Your task to perform on an android device: install app "Fetch Rewards" Image 0: 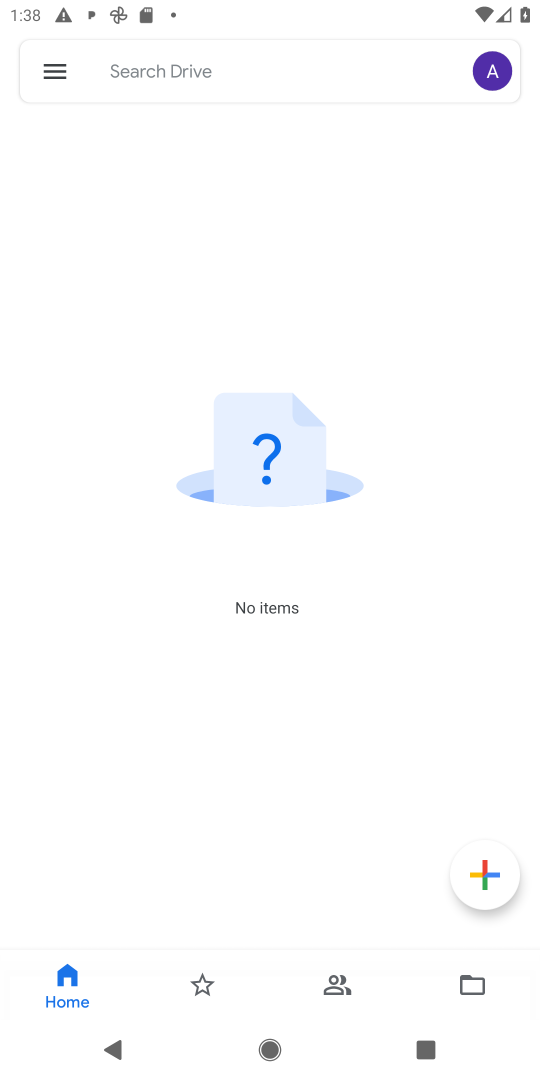
Step 0: press home button
Your task to perform on an android device: install app "Fetch Rewards" Image 1: 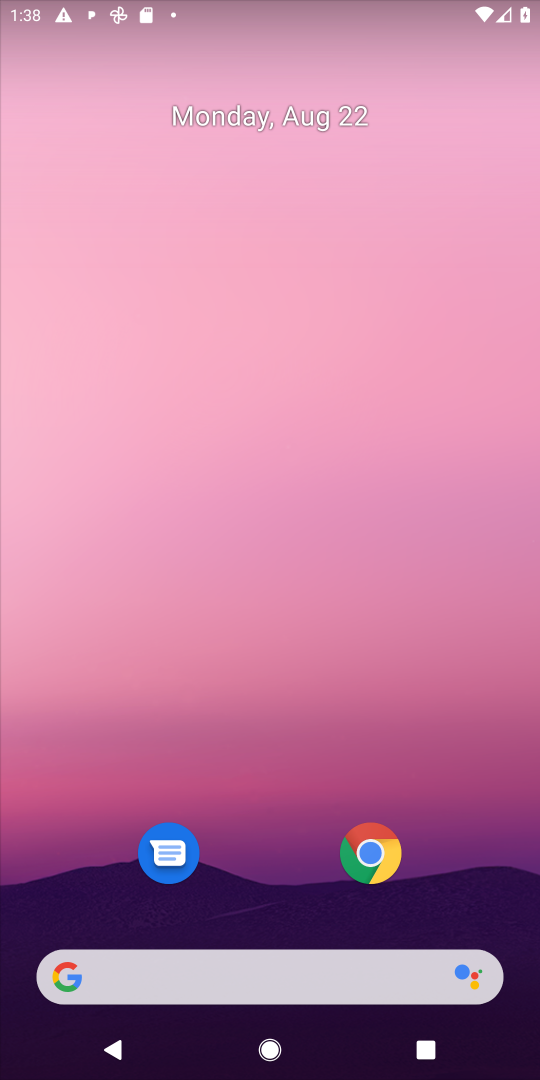
Step 1: drag from (267, 899) to (238, 427)
Your task to perform on an android device: install app "Fetch Rewards" Image 2: 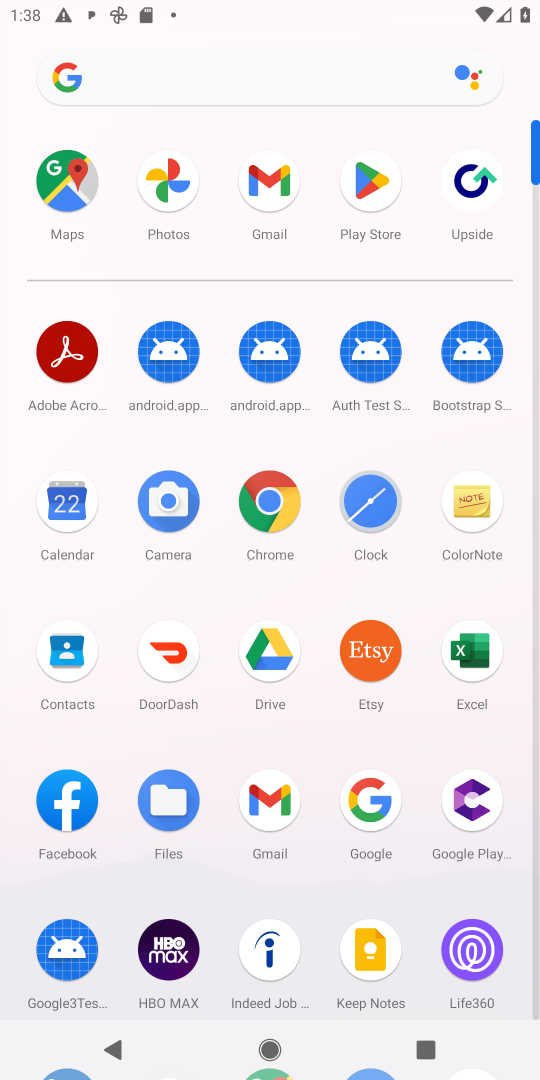
Step 2: click (364, 178)
Your task to perform on an android device: install app "Fetch Rewards" Image 3: 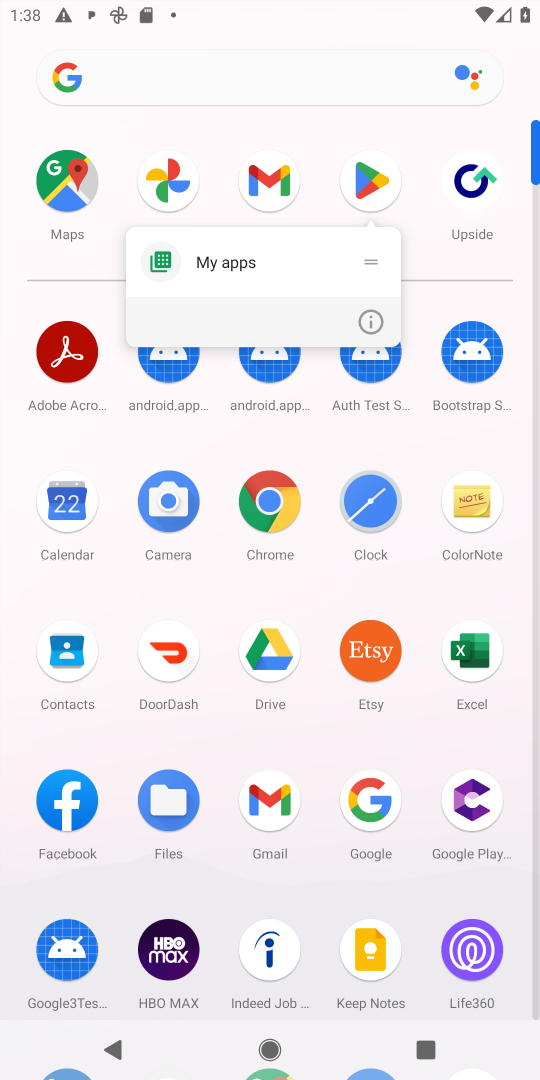
Step 3: click (355, 181)
Your task to perform on an android device: install app "Fetch Rewards" Image 4: 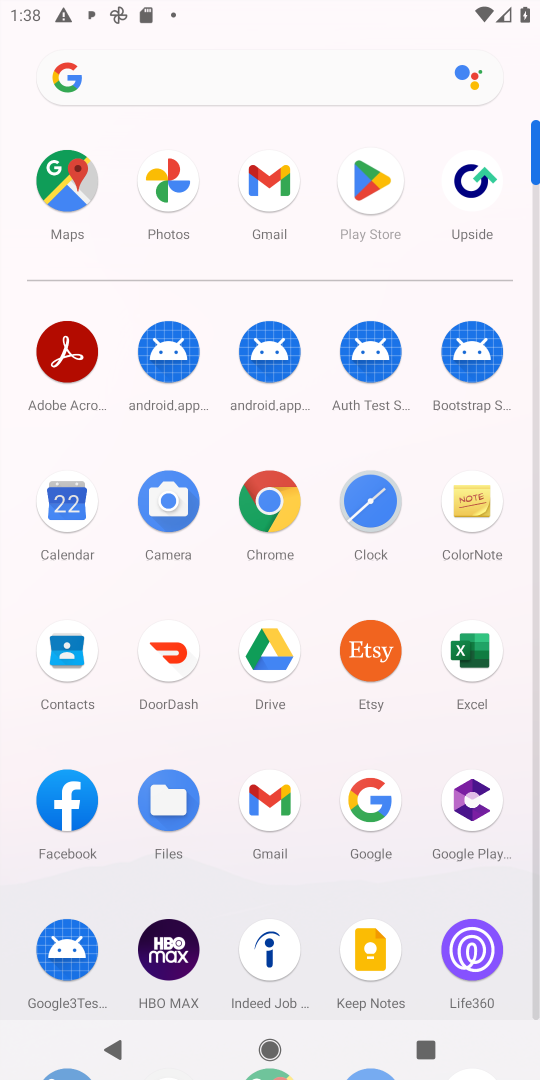
Step 4: click (355, 181)
Your task to perform on an android device: install app "Fetch Rewards" Image 5: 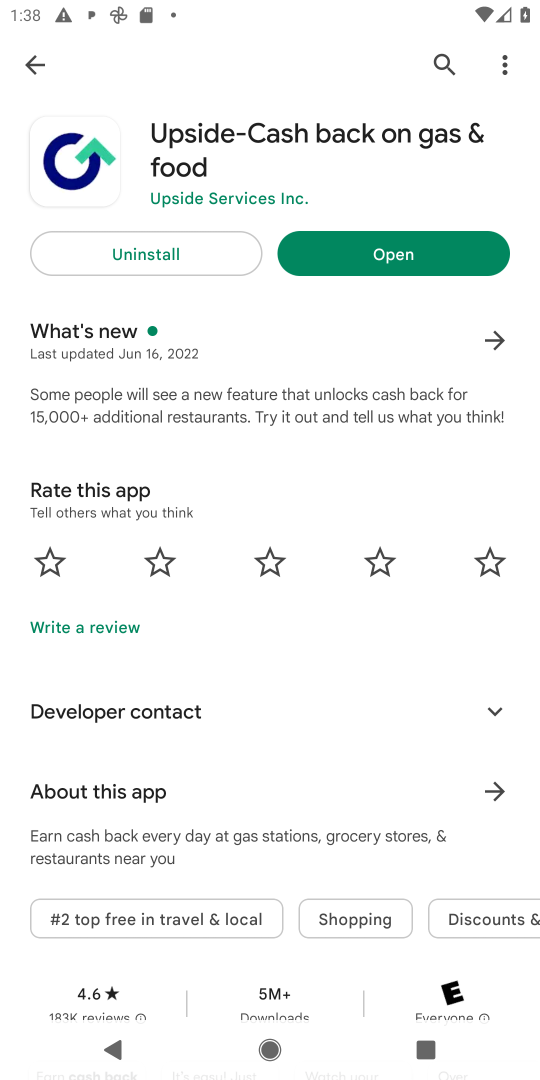
Step 5: click (16, 62)
Your task to perform on an android device: install app "Fetch Rewards" Image 6: 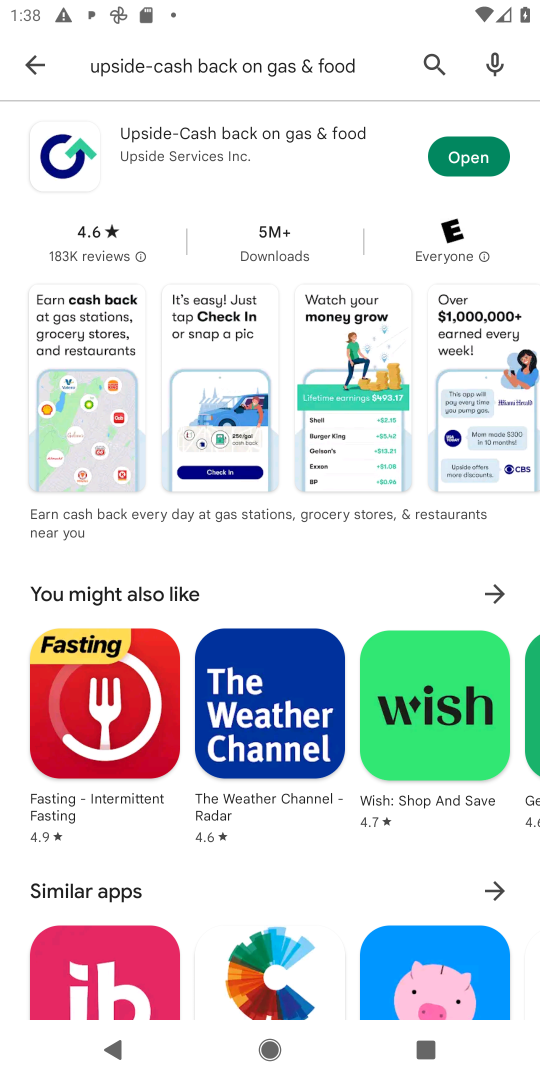
Step 6: click (45, 63)
Your task to perform on an android device: install app "Fetch Rewards" Image 7: 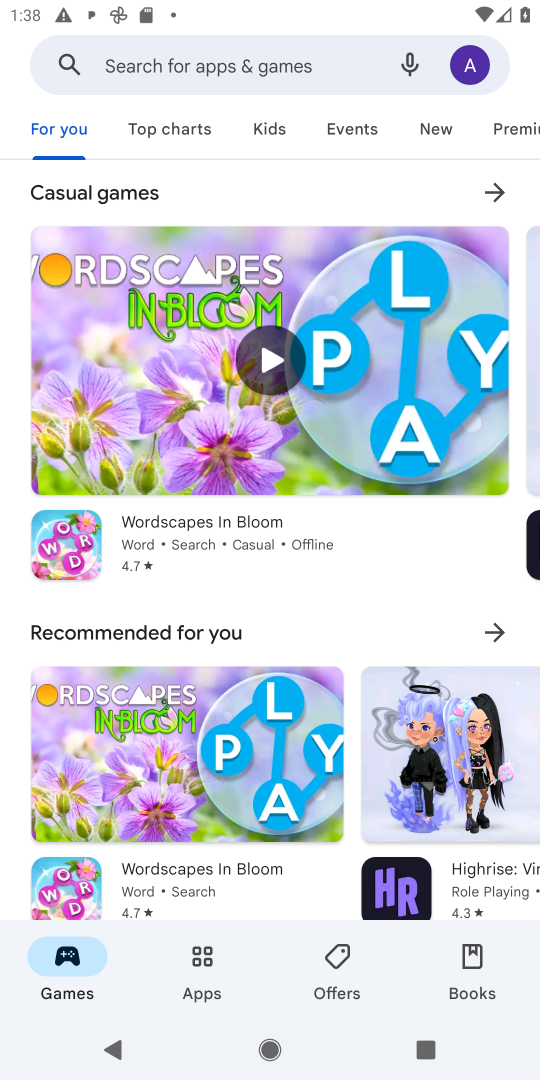
Step 7: click (248, 44)
Your task to perform on an android device: install app "Fetch Rewards" Image 8: 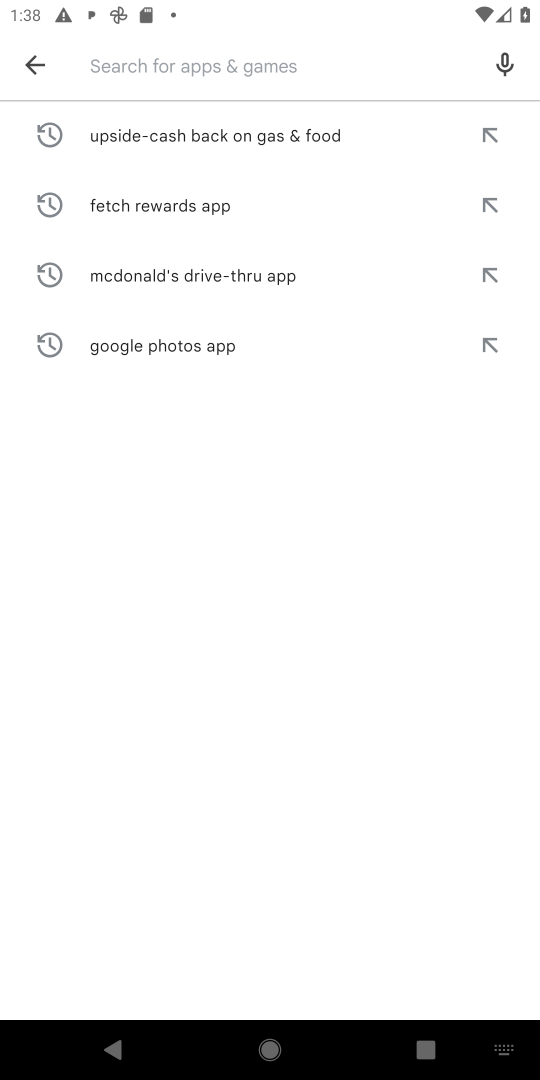
Step 8: type "Fetch Rewards "
Your task to perform on an android device: install app "Fetch Rewards" Image 9: 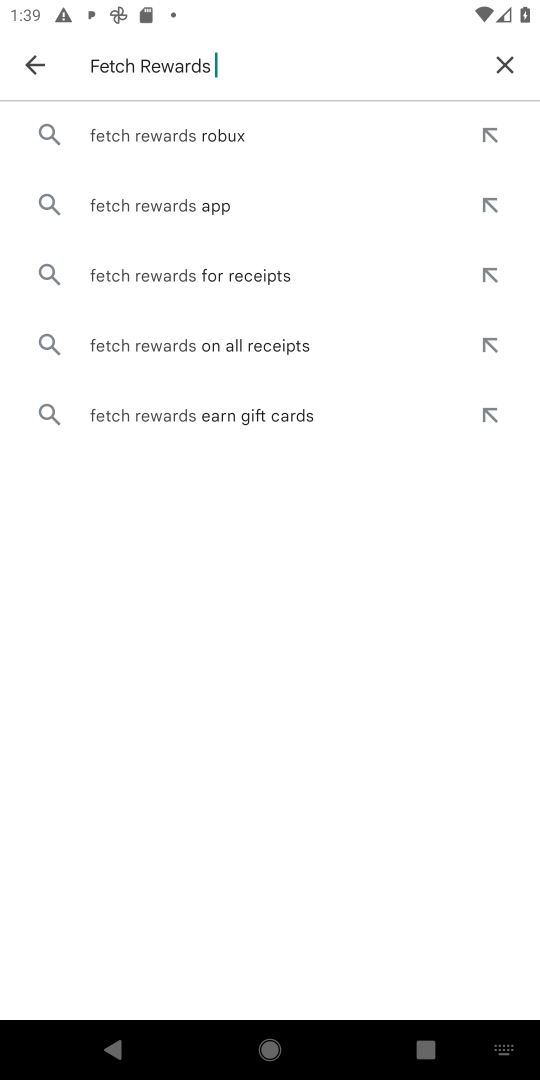
Step 9: drag from (194, 146) to (35, 203)
Your task to perform on an android device: install app "Fetch Rewards" Image 10: 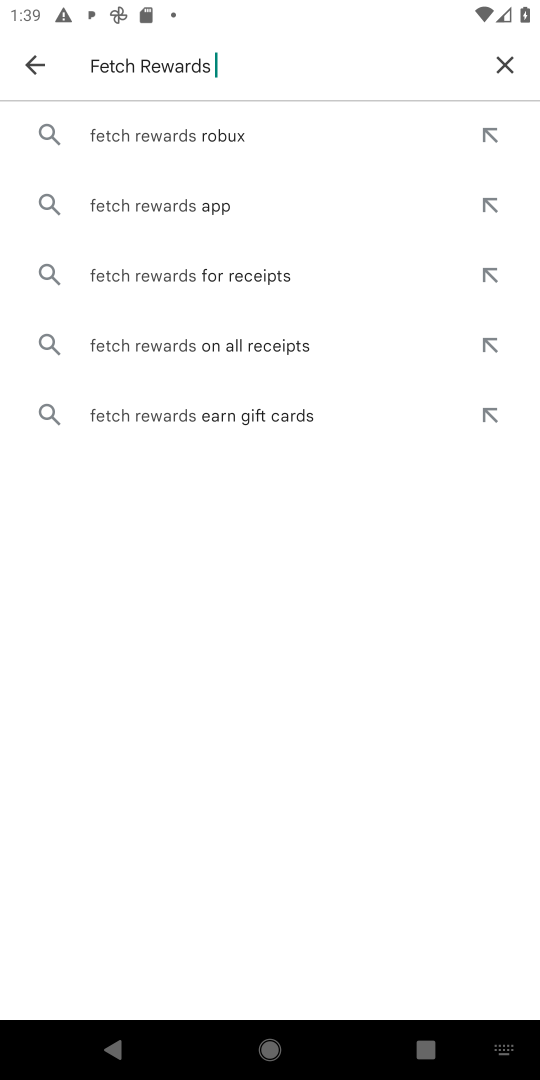
Step 10: click (141, 194)
Your task to perform on an android device: install app "Fetch Rewards" Image 11: 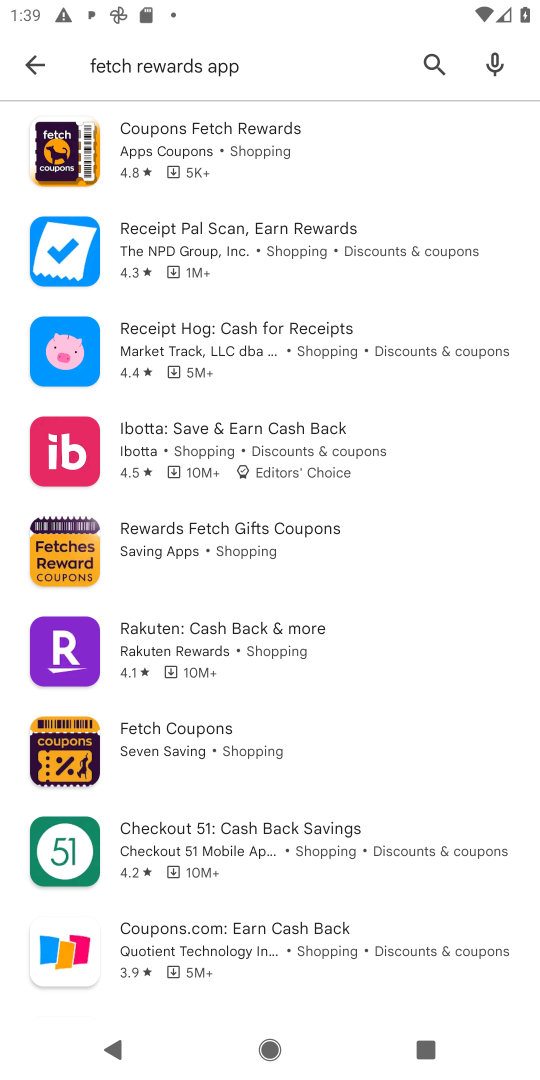
Step 11: click (227, 523)
Your task to perform on an android device: install app "Fetch Rewards" Image 12: 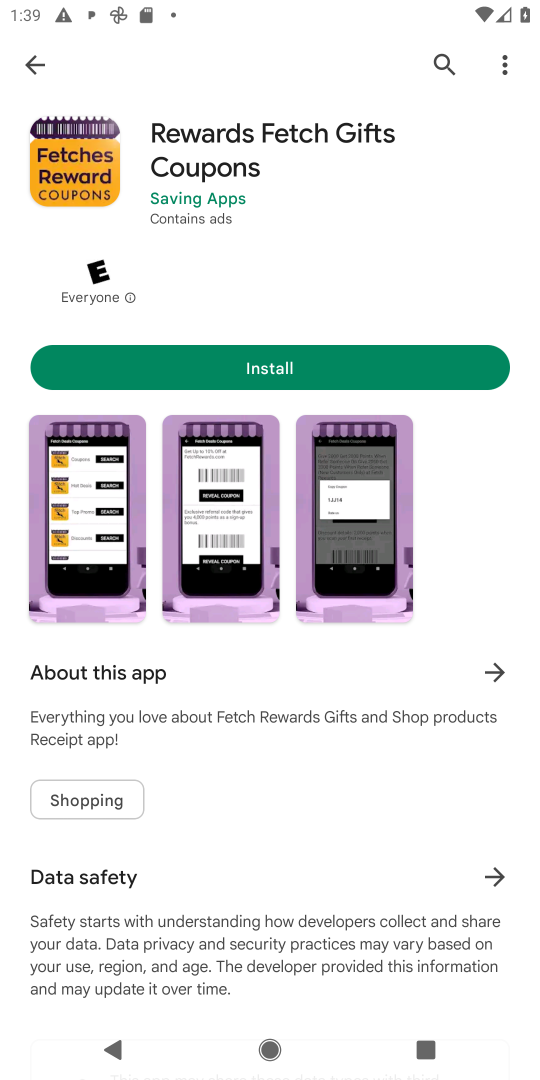
Step 12: click (195, 354)
Your task to perform on an android device: install app "Fetch Rewards" Image 13: 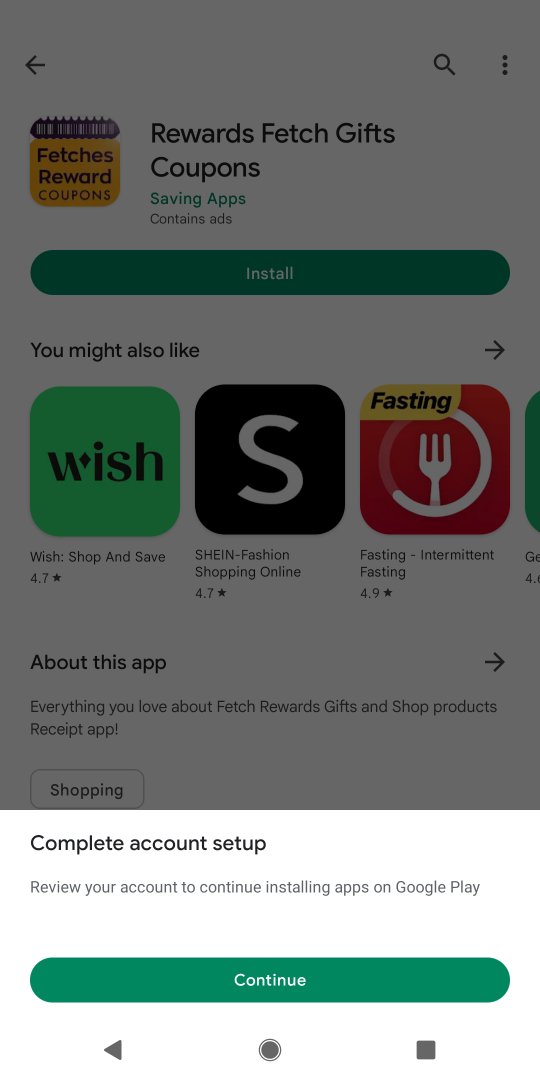
Step 13: task complete